Your task to perform on an android device: Search for vegetarian restaurants on Maps Image 0: 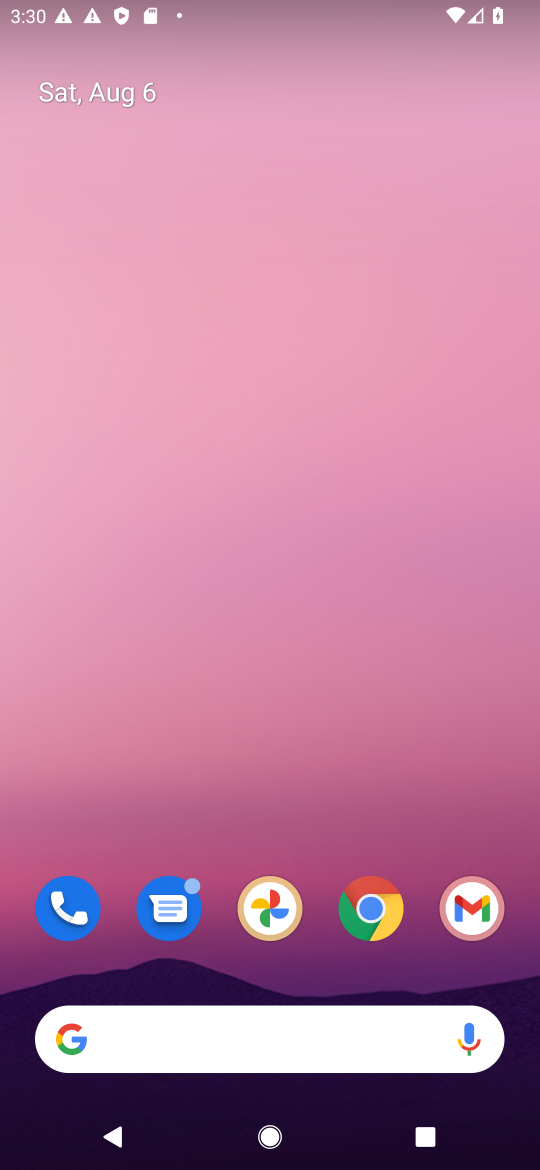
Step 0: drag from (244, 996) to (265, 400)
Your task to perform on an android device: Search for vegetarian restaurants on Maps Image 1: 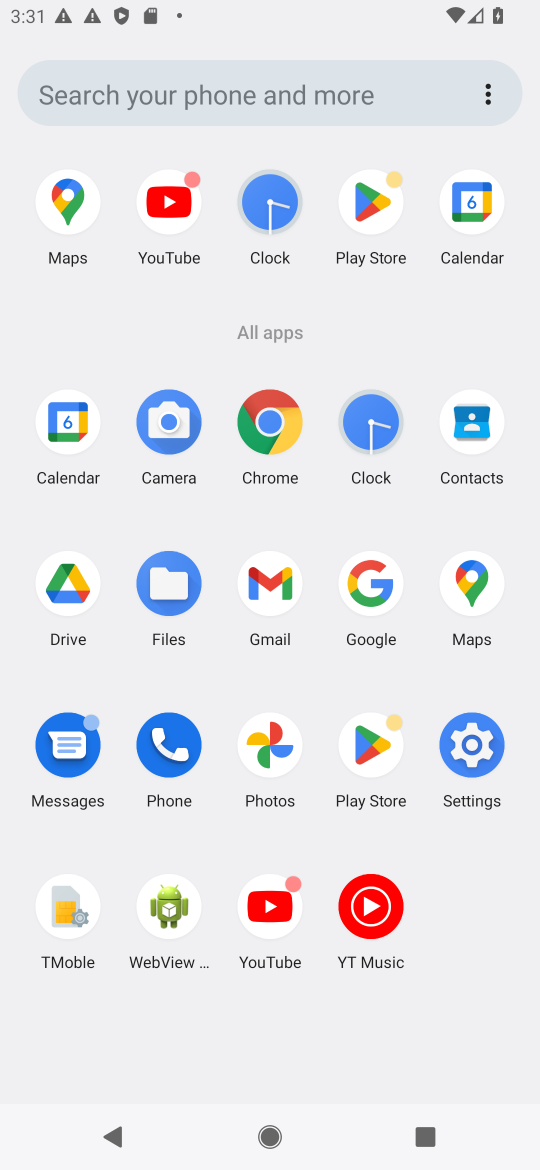
Step 1: click (486, 600)
Your task to perform on an android device: Search for vegetarian restaurants on Maps Image 2: 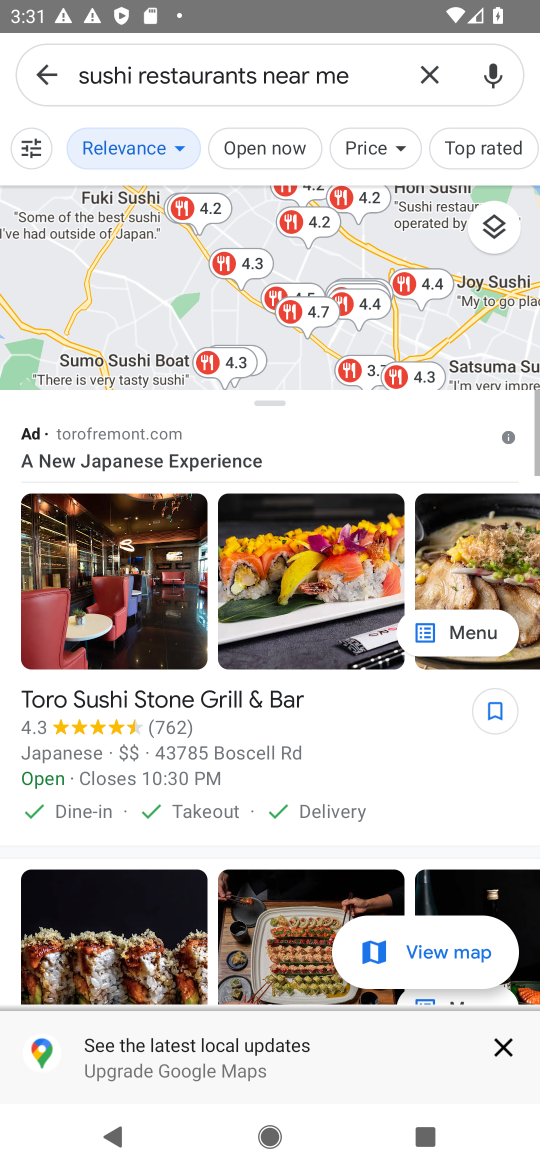
Step 2: click (433, 69)
Your task to perform on an android device: Search for vegetarian restaurants on Maps Image 3: 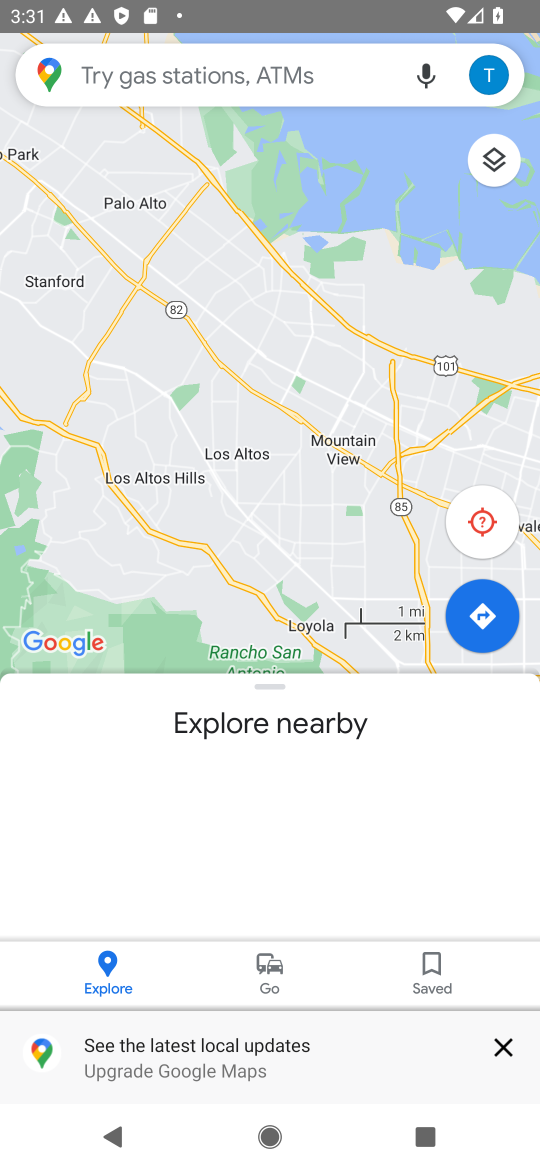
Step 3: click (239, 75)
Your task to perform on an android device: Search for vegetarian restaurants on Maps Image 4: 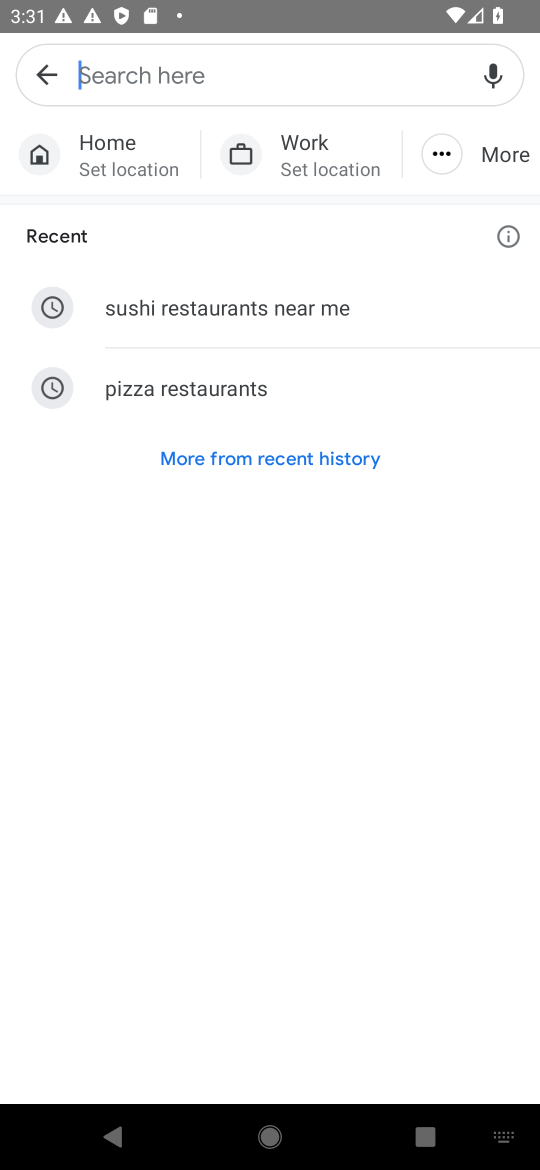
Step 4: type "vegetarian restaurants"
Your task to perform on an android device: Search for vegetarian restaurants on Maps Image 5: 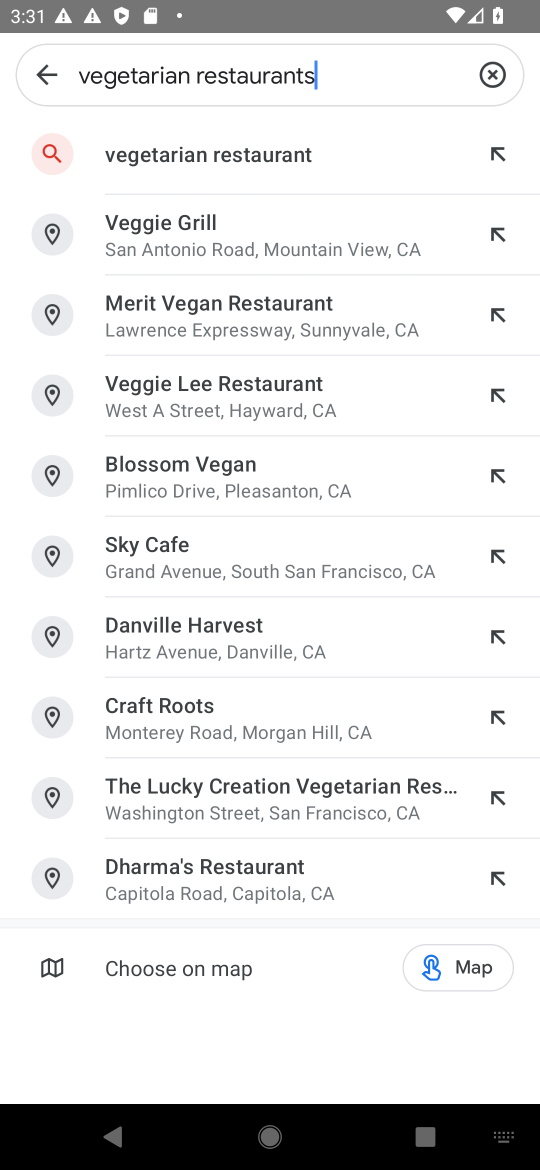
Step 5: click (211, 165)
Your task to perform on an android device: Search for vegetarian restaurants on Maps Image 6: 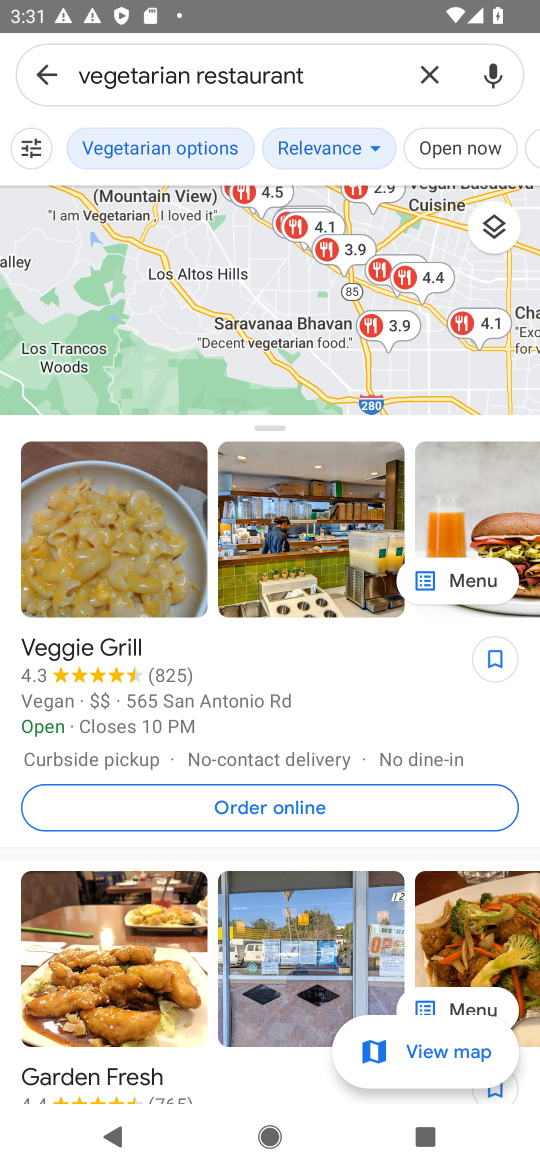
Step 6: task complete